Your task to perform on an android device: When is my next appointment? Image 0: 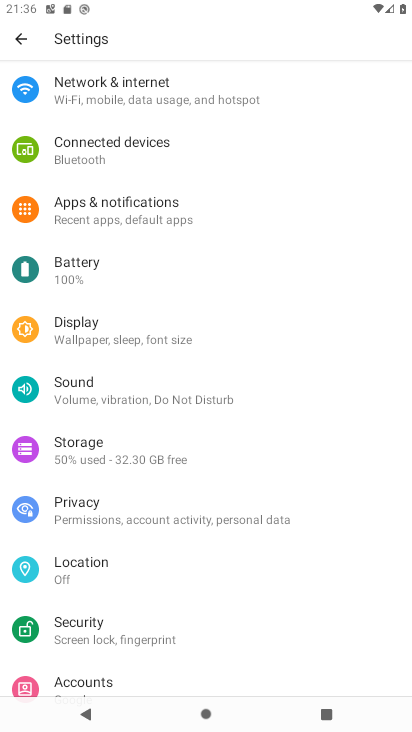
Step 0: press back button
Your task to perform on an android device: When is my next appointment? Image 1: 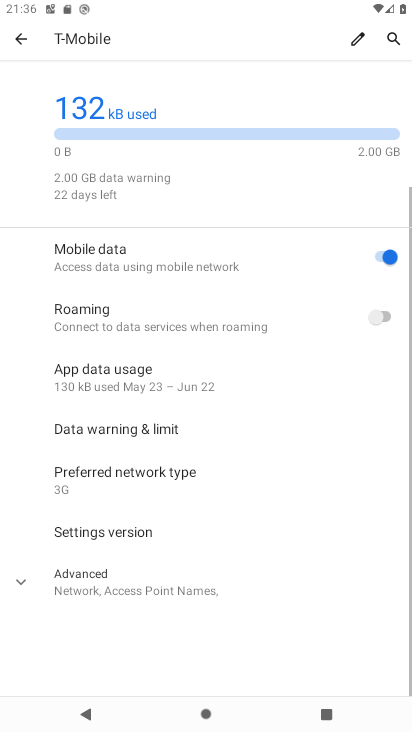
Step 1: press back button
Your task to perform on an android device: When is my next appointment? Image 2: 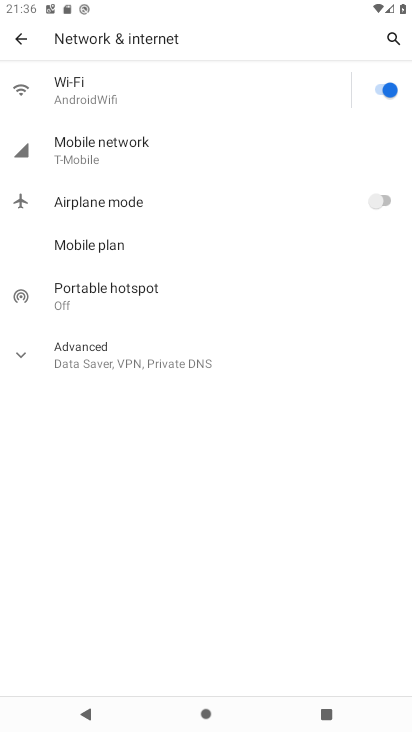
Step 2: press back button
Your task to perform on an android device: When is my next appointment? Image 3: 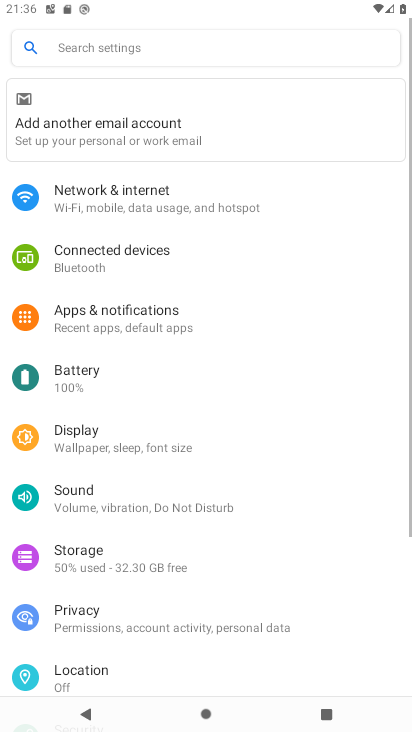
Step 3: press back button
Your task to perform on an android device: When is my next appointment? Image 4: 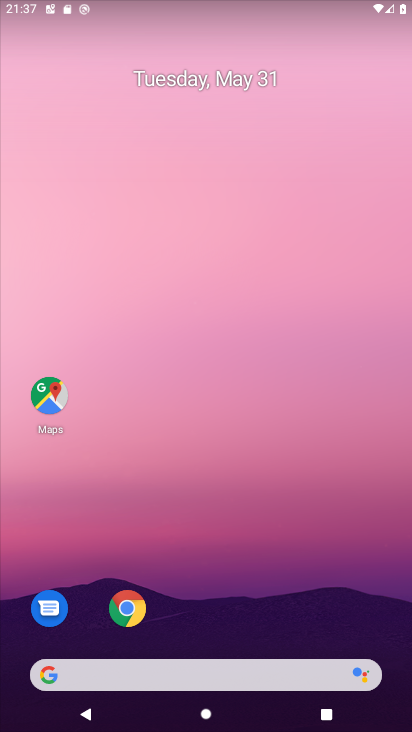
Step 4: drag from (258, 592) to (201, 122)
Your task to perform on an android device: When is my next appointment? Image 5: 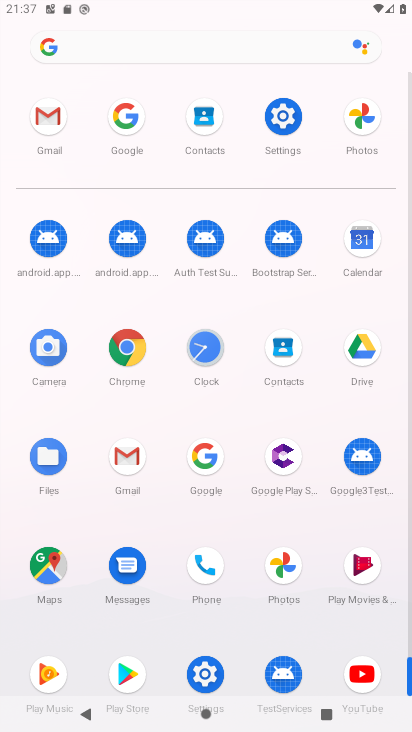
Step 5: click (358, 244)
Your task to perform on an android device: When is my next appointment? Image 6: 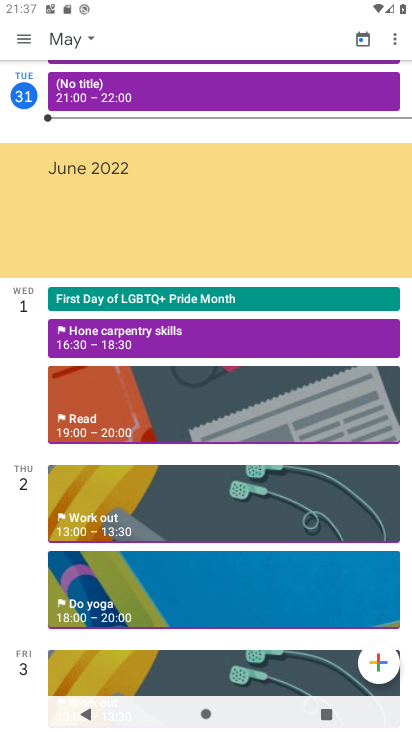
Step 6: click (91, 37)
Your task to perform on an android device: When is my next appointment? Image 7: 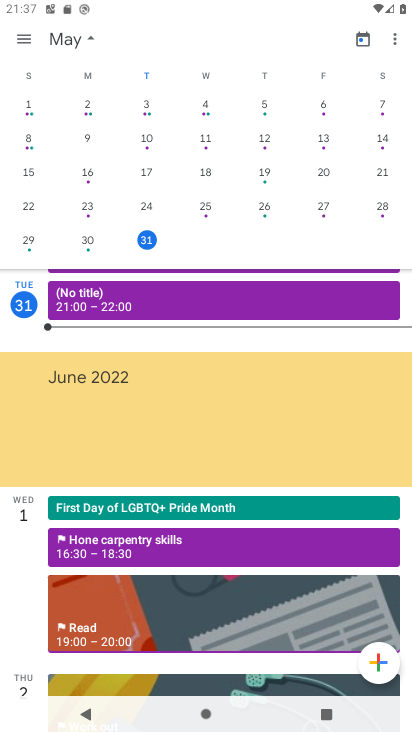
Step 7: drag from (364, 196) to (10, 225)
Your task to perform on an android device: When is my next appointment? Image 8: 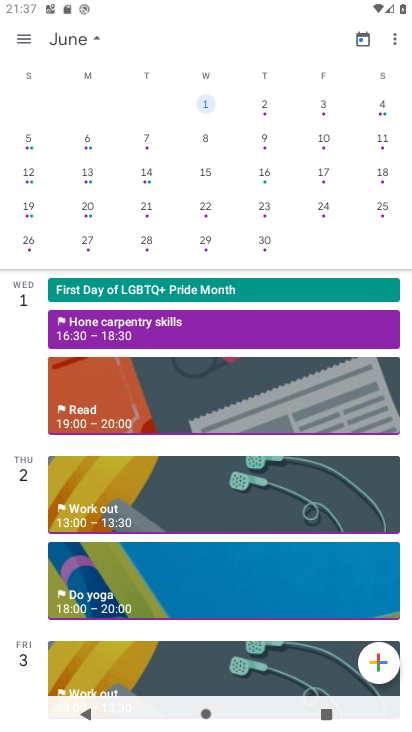
Step 8: click (258, 100)
Your task to perform on an android device: When is my next appointment? Image 9: 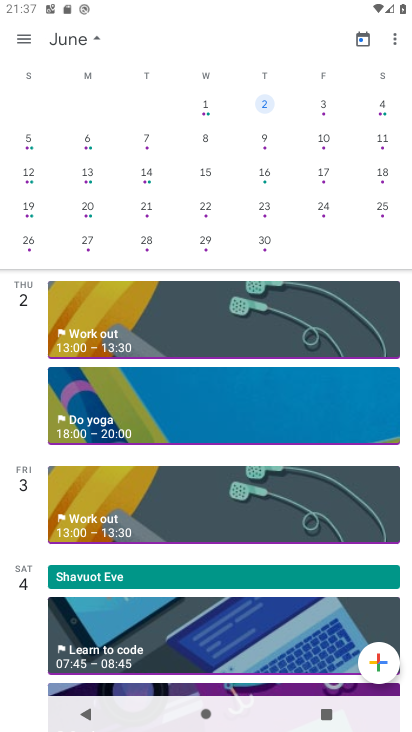
Step 9: click (18, 36)
Your task to perform on an android device: When is my next appointment? Image 10: 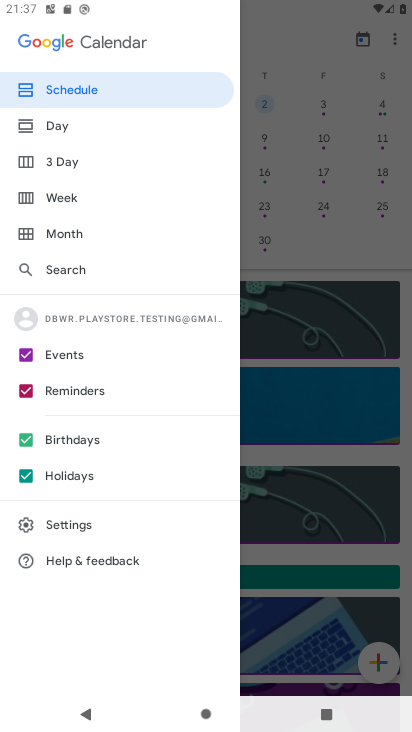
Step 10: click (87, 96)
Your task to perform on an android device: When is my next appointment? Image 11: 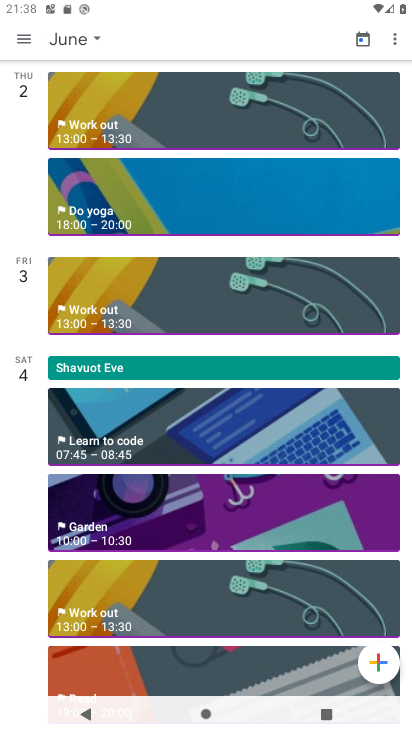
Step 11: task complete